Your task to perform on an android device: Open the Play Movies app and select the watchlist tab. Image 0: 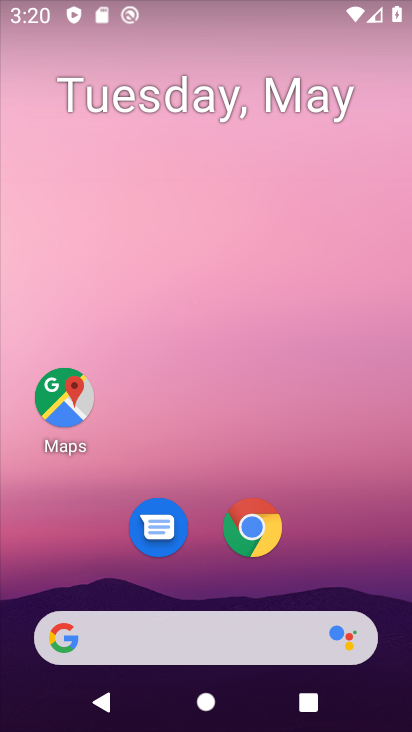
Step 0: drag from (126, 560) to (227, 58)
Your task to perform on an android device: Open the Play Movies app and select the watchlist tab. Image 1: 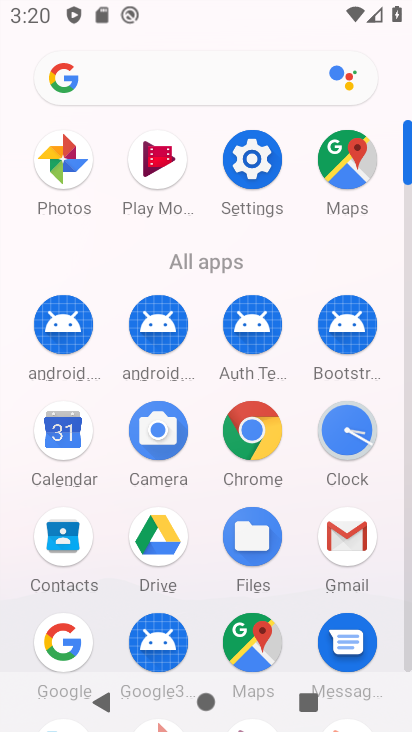
Step 1: drag from (207, 517) to (254, 295)
Your task to perform on an android device: Open the Play Movies app and select the watchlist tab. Image 2: 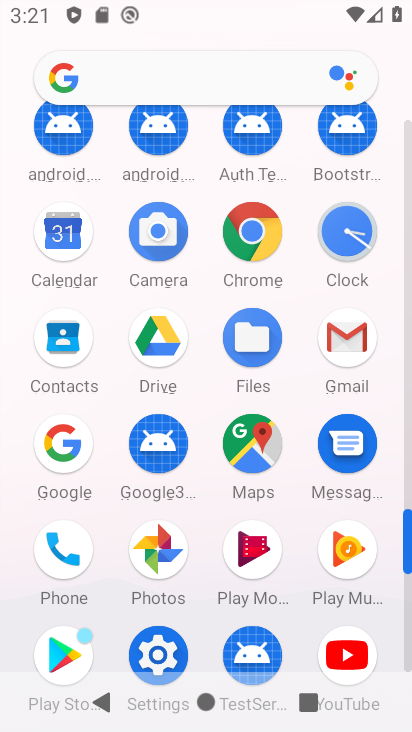
Step 2: click (257, 573)
Your task to perform on an android device: Open the Play Movies app and select the watchlist tab. Image 3: 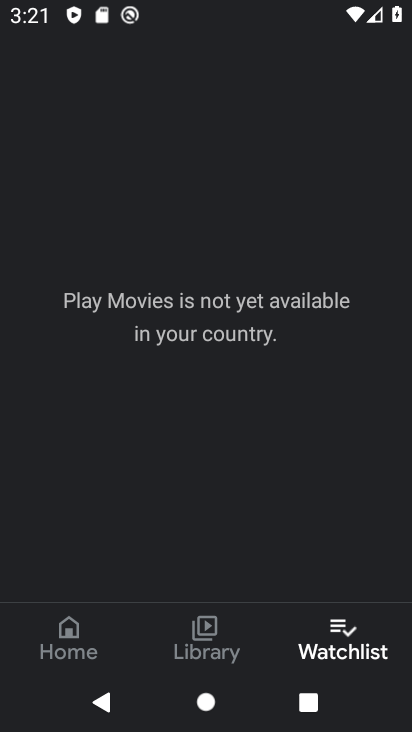
Step 3: task complete